Your task to perform on an android device: turn off improve location accuracy Image 0: 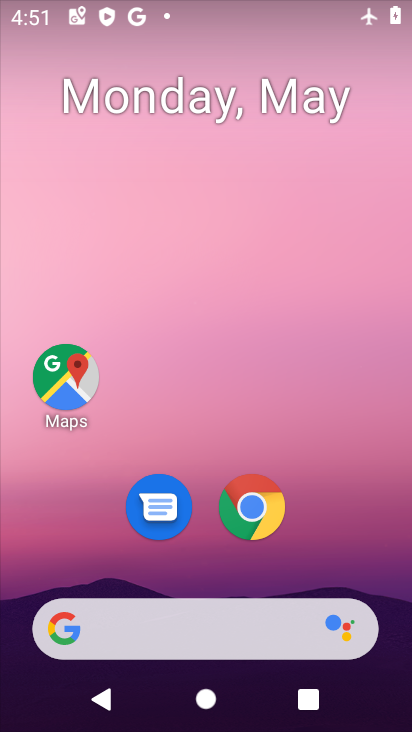
Step 0: drag from (349, 534) to (405, 129)
Your task to perform on an android device: turn off improve location accuracy Image 1: 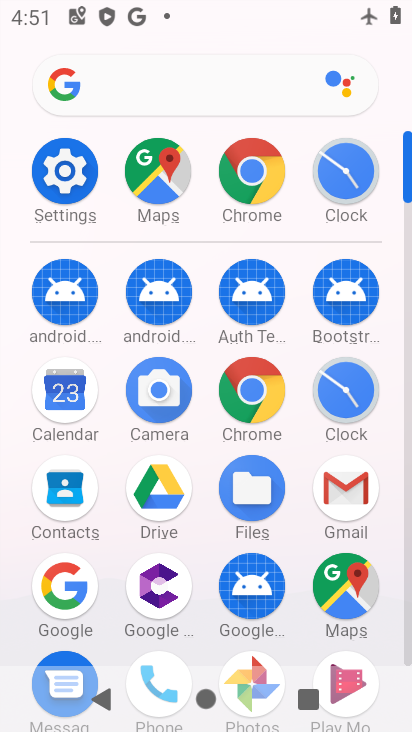
Step 1: click (89, 178)
Your task to perform on an android device: turn off improve location accuracy Image 2: 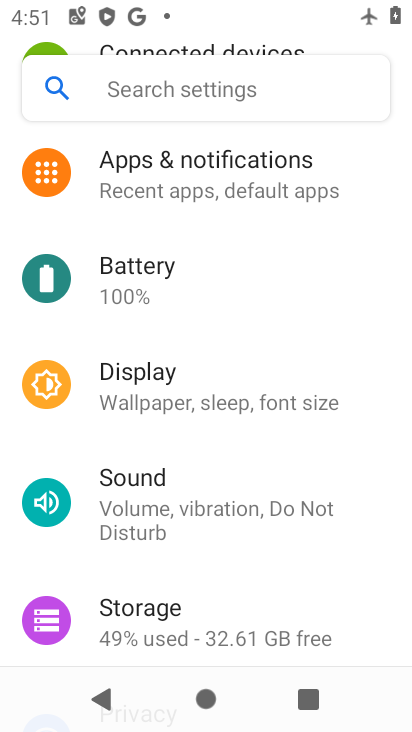
Step 2: drag from (217, 254) to (215, 584)
Your task to perform on an android device: turn off improve location accuracy Image 3: 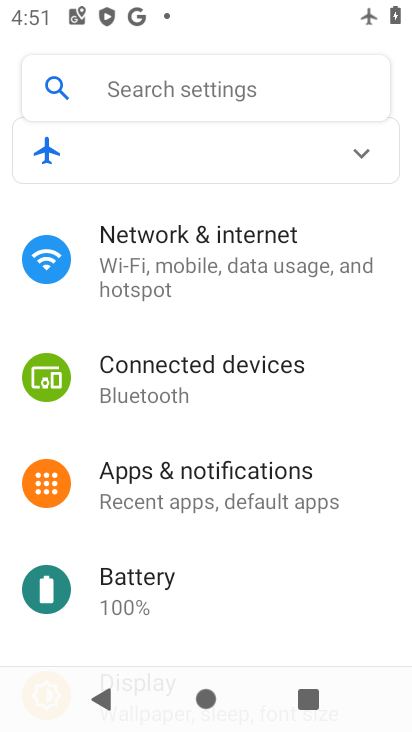
Step 3: drag from (210, 426) to (224, 168)
Your task to perform on an android device: turn off improve location accuracy Image 4: 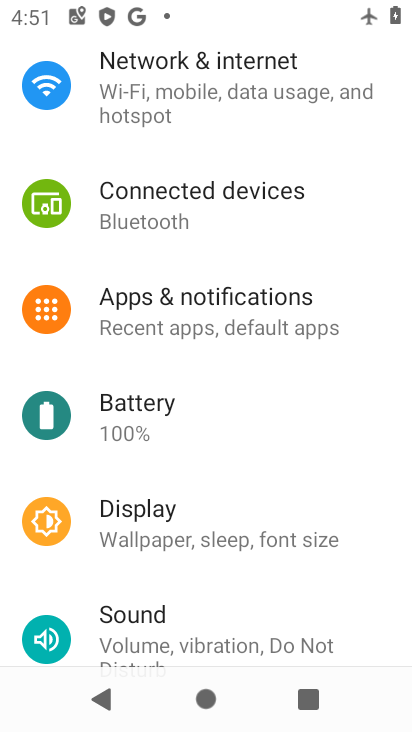
Step 4: drag from (204, 537) to (245, 139)
Your task to perform on an android device: turn off improve location accuracy Image 5: 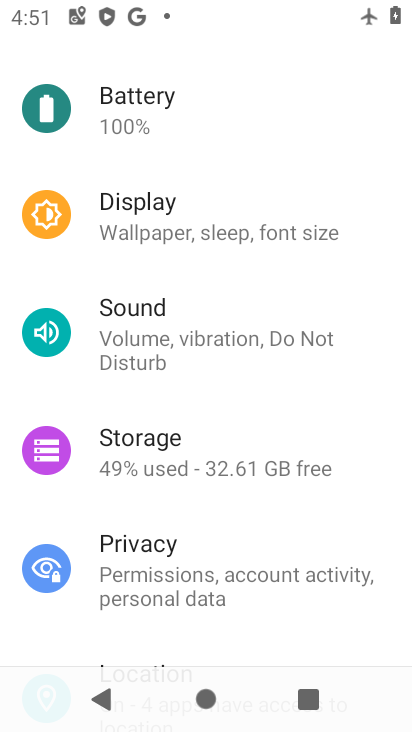
Step 5: drag from (222, 532) to (265, 107)
Your task to perform on an android device: turn off improve location accuracy Image 6: 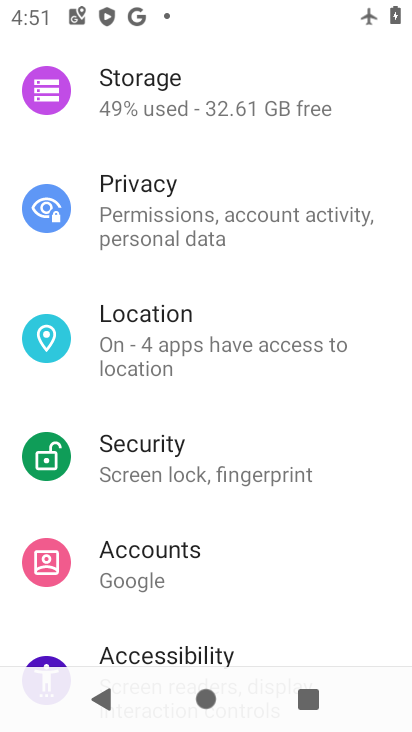
Step 6: click (189, 342)
Your task to perform on an android device: turn off improve location accuracy Image 7: 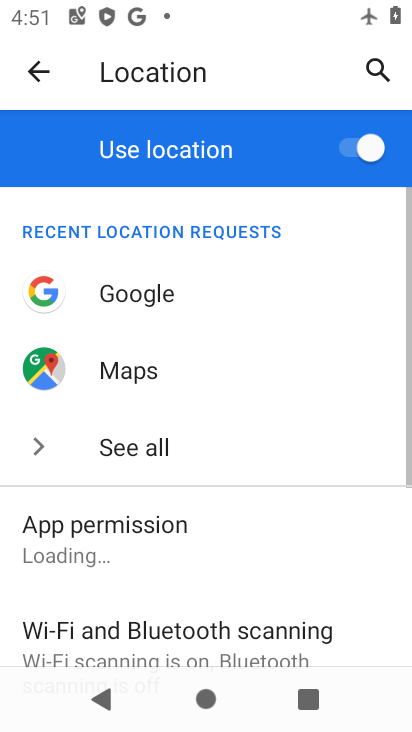
Step 7: drag from (180, 613) to (201, 150)
Your task to perform on an android device: turn off improve location accuracy Image 8: 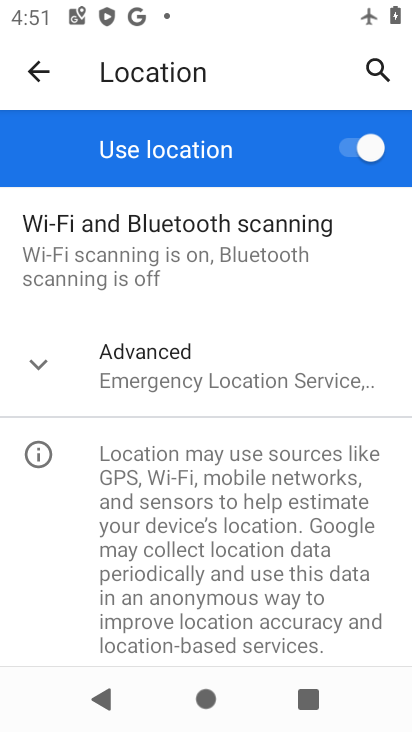
Step 8: drag from (152, 535) to (180, 193)
Your task to perform on an android device: turn off improve location accuracy Image 9: 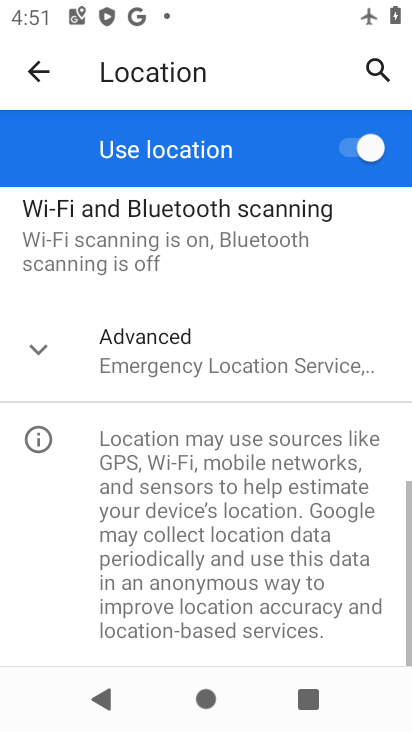
Step 9: click (196, 350)
Your task to perform on an android device: turn off improve location accuracy Image 10: 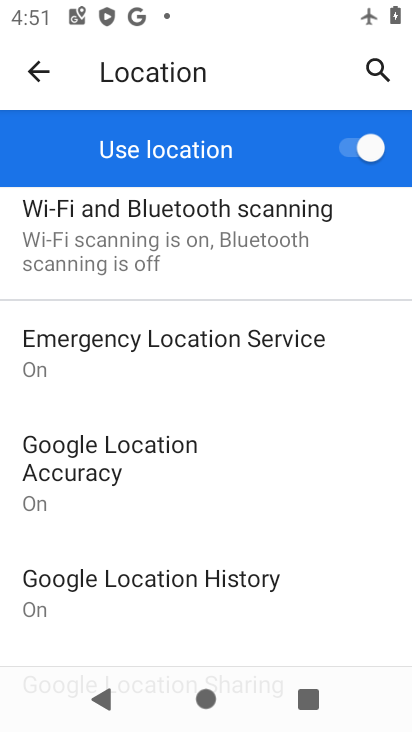
Step 10: drag from (227, 588) to (251, 238)
Your task to perform on an android device: turn off improve location accuracy Image 11: 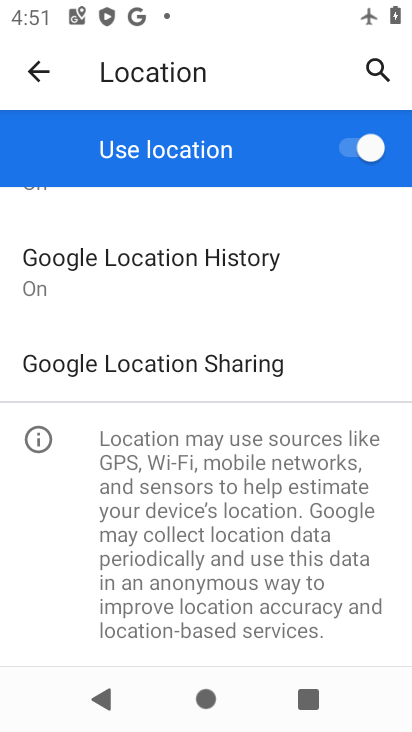
Step 11: drag from (256, 252) to (297, 581)
Your task to perform on an android device: turn off improve location accuracy Image 12: 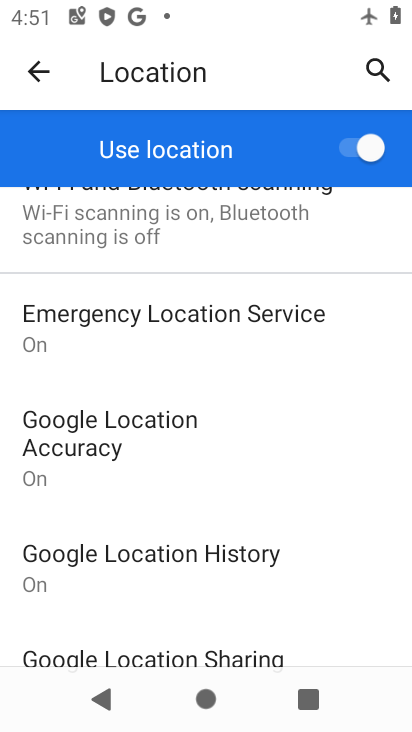
Step 12: click (96, 439)
Your task to perform on an android device: turn off improve location accuracy Image 13: 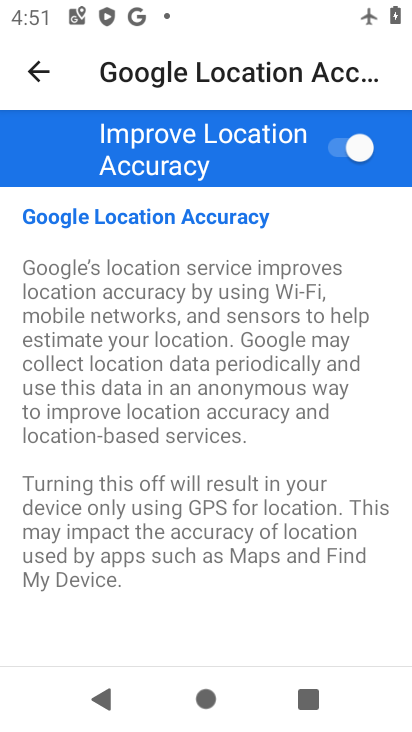
Step 13: click (370, 156)
Your task to perform on an android device: turn off improve location accuracy Image 14: 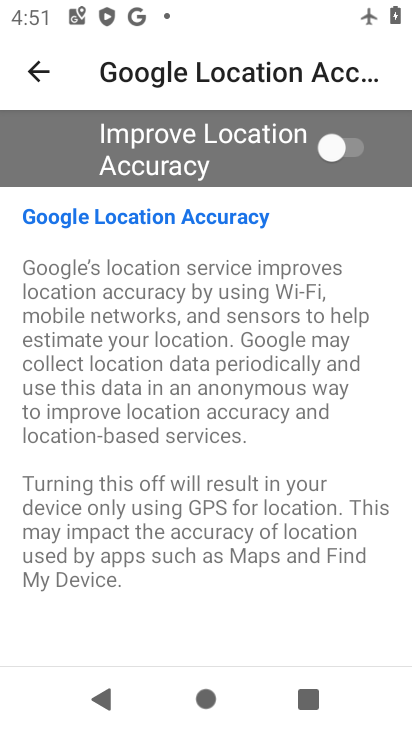
Step 14: task complete